Your task to perform on an android device: open chrome and create a bookmark for the current page Image 0: 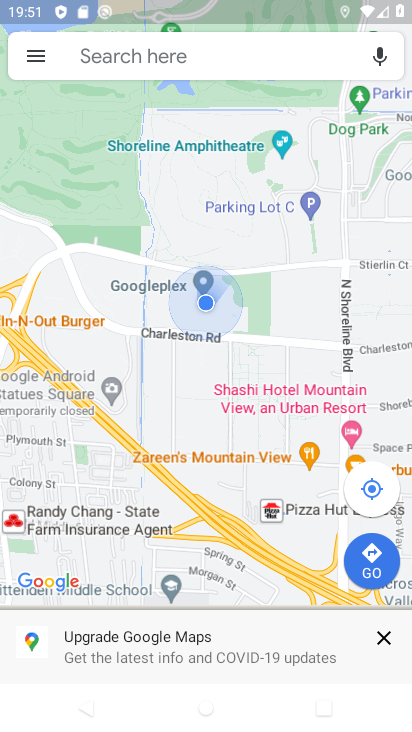
Step 0: press home button
Your task to perform on an android device: open chrome and create a bookmark for the current page Image 1: 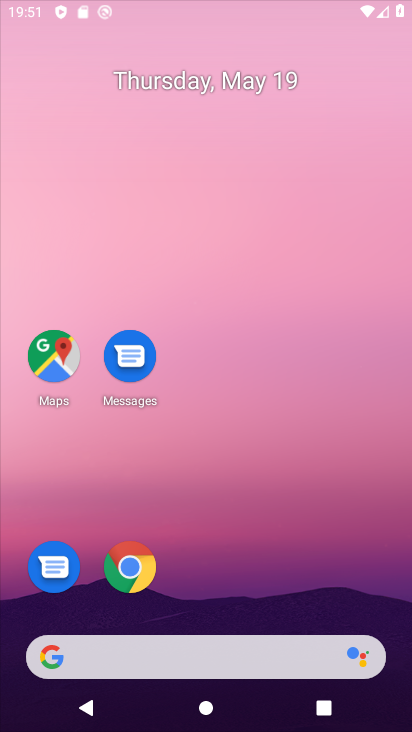
Step 1: drag from (210, 630) to (171, 49)
Your task to perform on an android device: open chrome and create a bookmark for the current page Image 2: 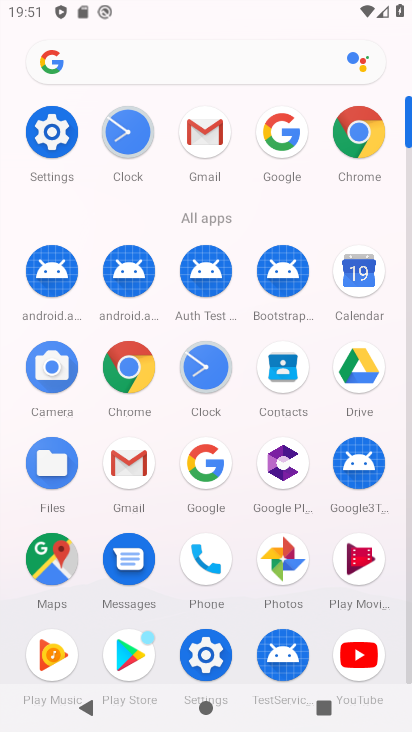
Step 2: click (129, 384)
Your task to perform on an android device: open chrome and create a bookmark for the current page Image 3: 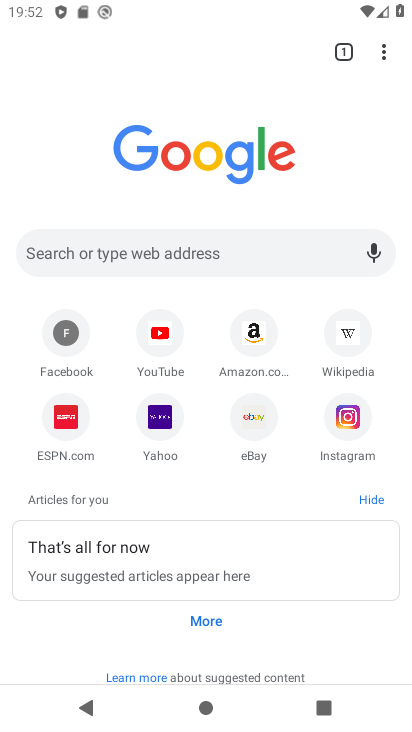
Step 3: task complete